Your task to perform on an android device: turn notification dots on Image 0: 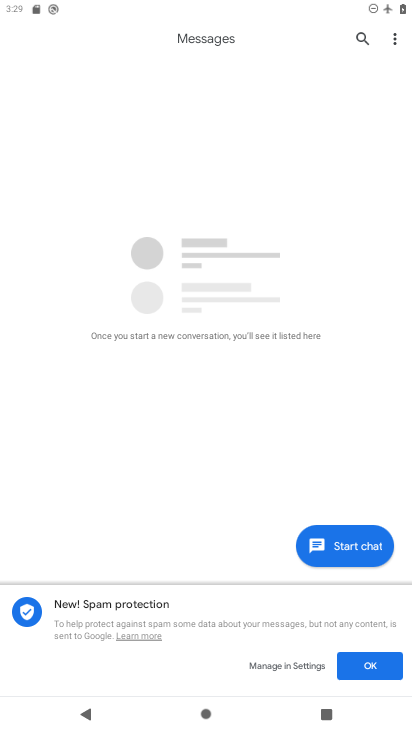
Step 0: press home button
Your task to perform on an android device: turn notification dots on Image 1: 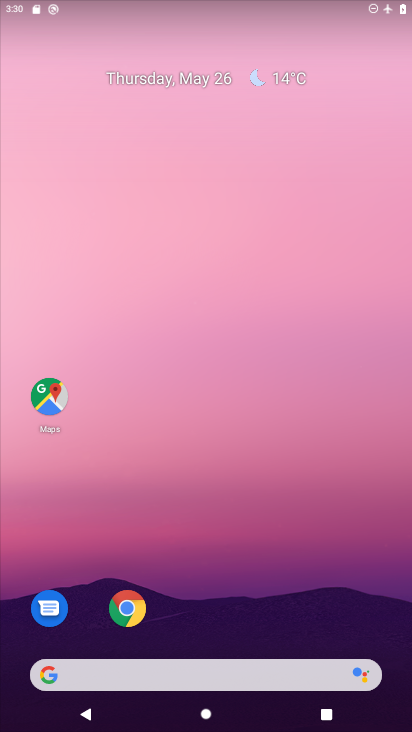
Step 1: drag from (319, 565) to (334, 86)
Your task to perform on an android device: turn notification dots on Image 2: 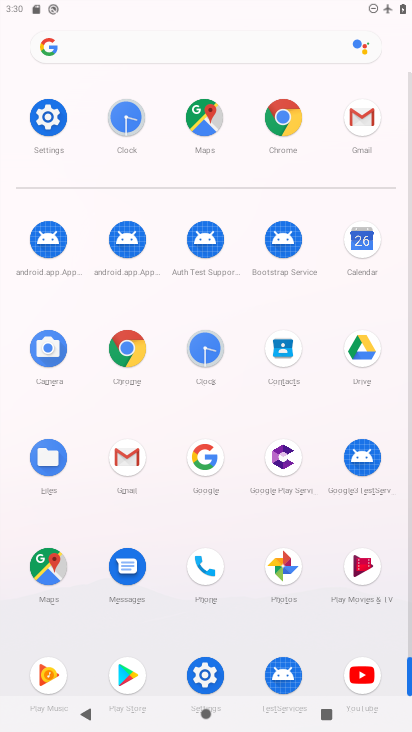
Step 2: click (54, 112)
Your task to perform on an android device: turn notification dots on Image 3: 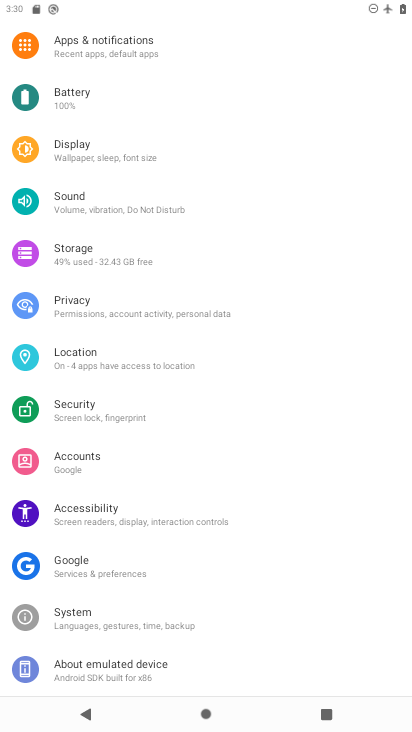
Step 3: click (136, 55)
Your task to perform on an android device: turn notification dots on Image 4: 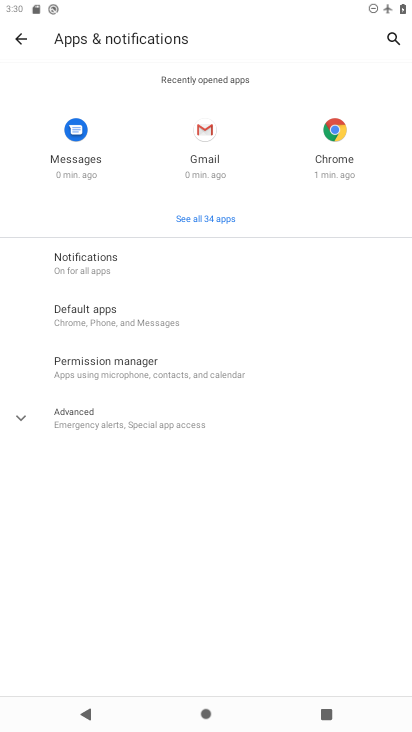
Step 4: click (111, 421)
Your task to perform on an android device: turn notification dots on Image 5: 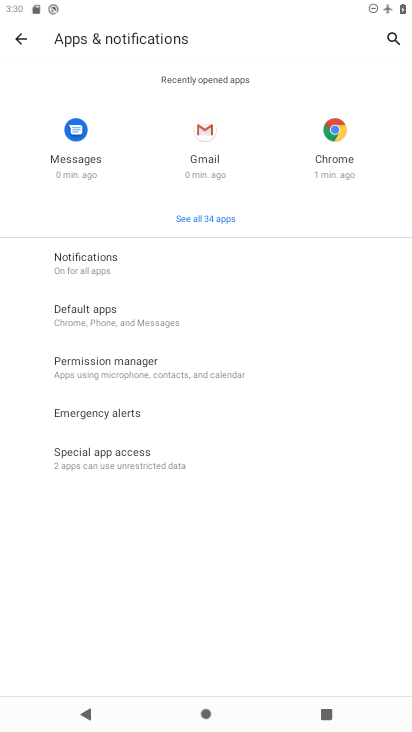
Step 5: drag from (184, 557) to (174, 265)
Your task to perform on an android device: turn notification dots on Image 6: 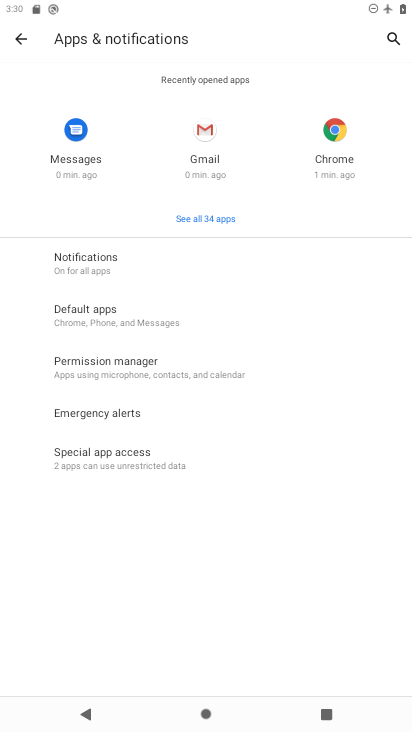
Step 6: click (87, 258)
Your task to perform on an android device: turn notification dots on Image 7: 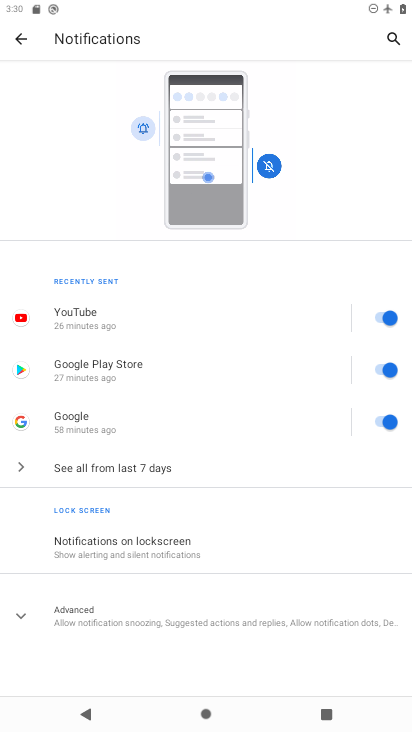
Step 7: drag from (225, 548) to (314, 187)
Your task to perform on an android device: turn notification dots on Image 8: 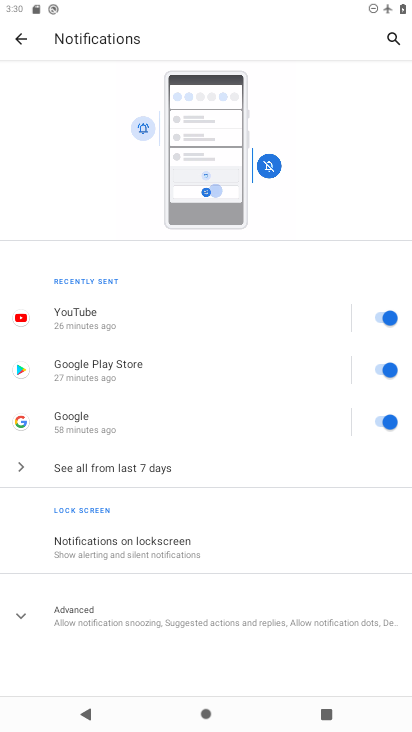
Step 8: click (171, 625)
Your task to perform on an android device: turn notification dots on Image 9: 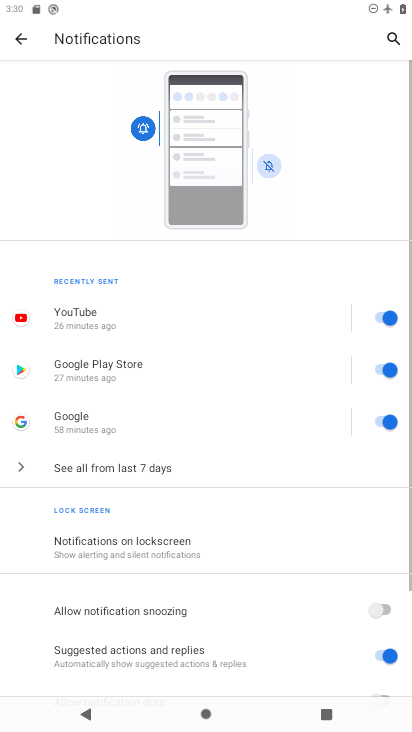
Step 9: drag from (171, 624) to (227, 223)
Your task to perform on an android device: turn notification dots on Image 10: 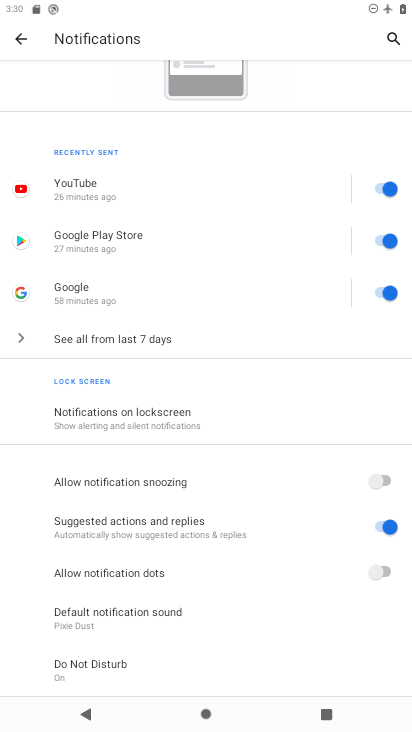
Step 10: click (388, 576)
Your task to perform on an android device: turn notification dots on Image 11: 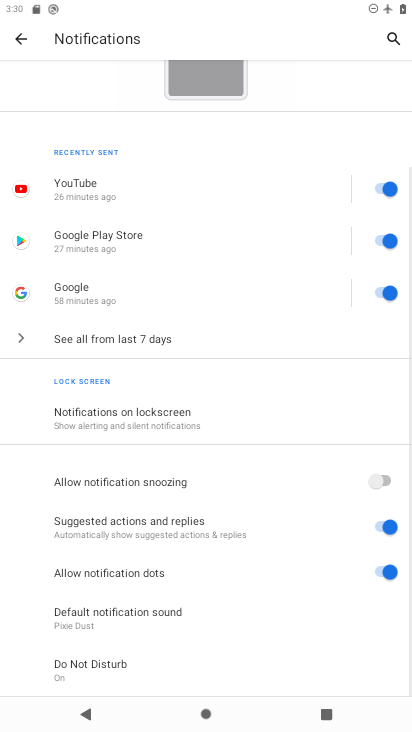
Step 11: task complete